Your task to perform on an android device: change the clock display to digital Image 0: 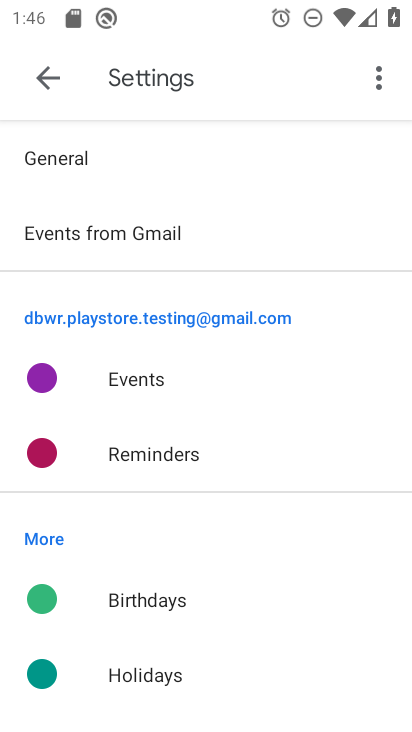
Step 0: press home button
Your task to perform on an android device: change the clock display to digital Image 1: 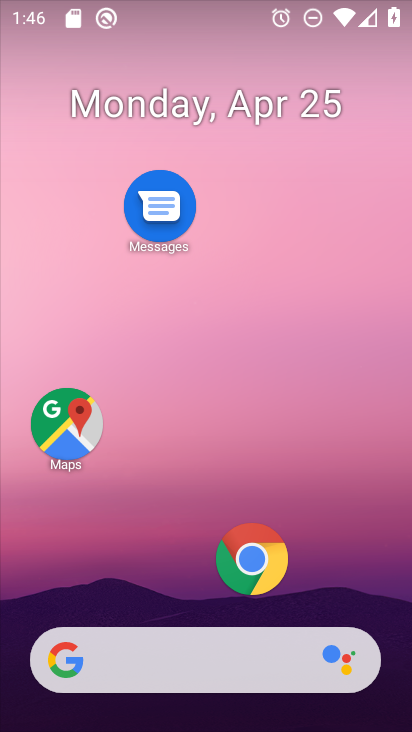
Step 1: drag from (181, 538) to (228, 150)
Your task to perform on an android device: change the clock display to digital Image 2: 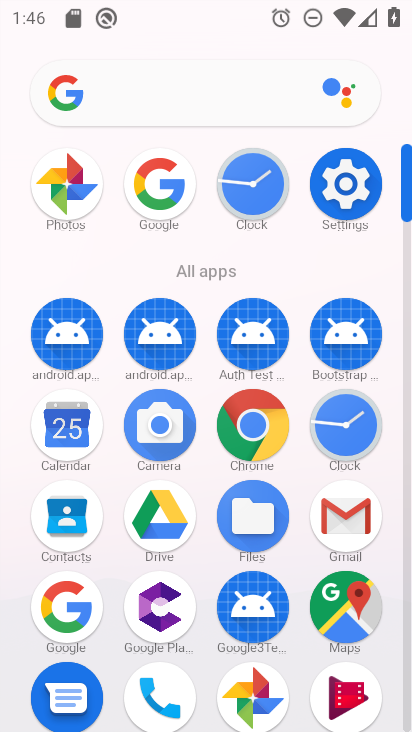
Step 2: click (343, 426)
Your task to perform on an android device: change the clock display to digital Image 3: 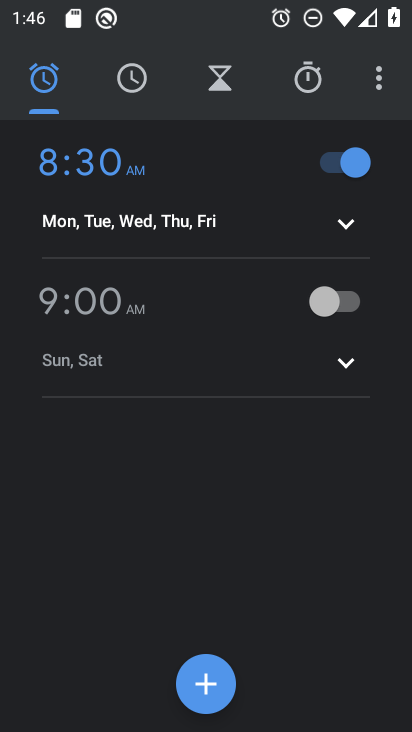
Step 3: click (373, 75)
Your task to perform on an android device: change the clock display to digital Image 4: 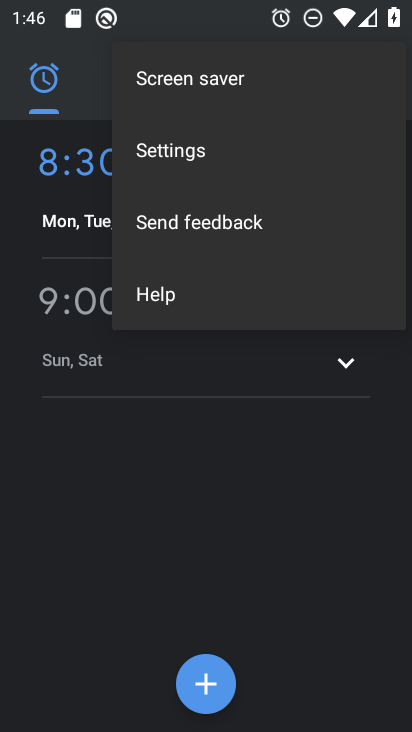
Step 4: click (258, 149)
Your task to perform on an android device: change the clock display to digital Image 5: 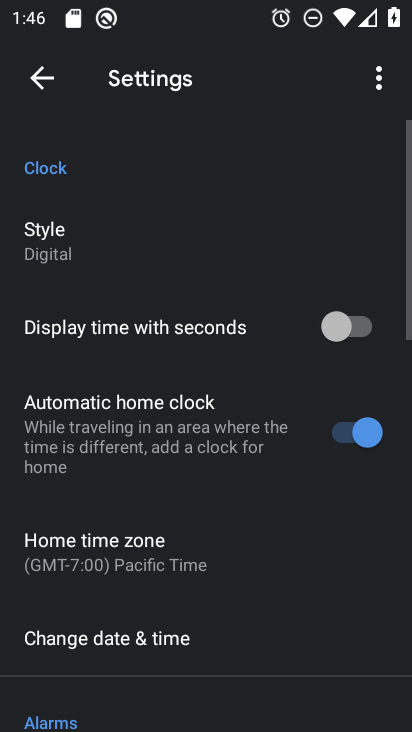
Step 5: click (143, 264)
Your task to perform on an android device: change the clock display to digital Image 6: 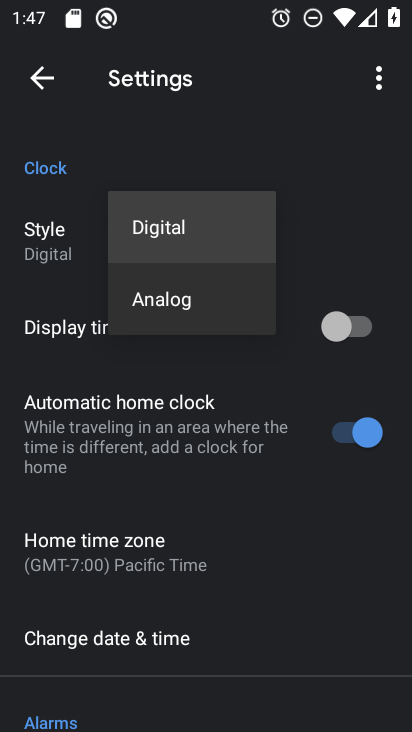
Step 6: click (171, 251)
Your task to perform on an android device: change the clock display to digital Image 7: 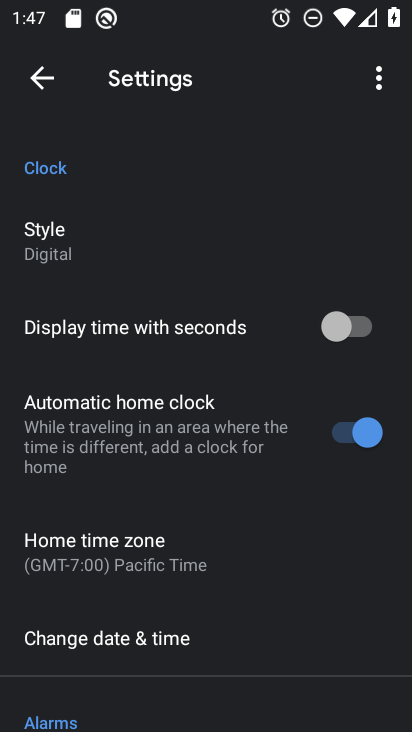
Step 7: task complete